Your task to perform on an android device: uninstall "Pandora - Music & Podcasts" Image 0: 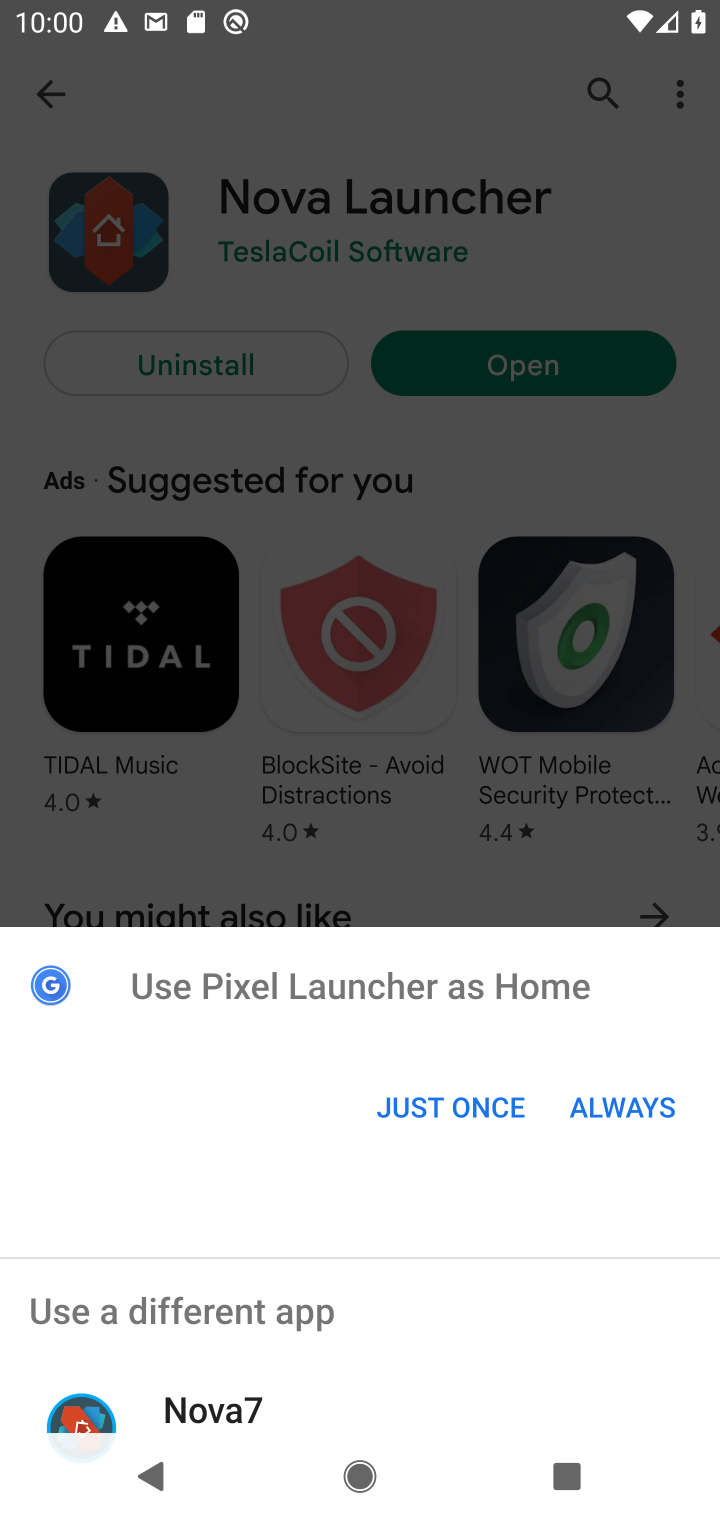
Step 0: press home button
Your task to perform on an android device: uninstall "Pandora - Music & Podcasts" Image 1: 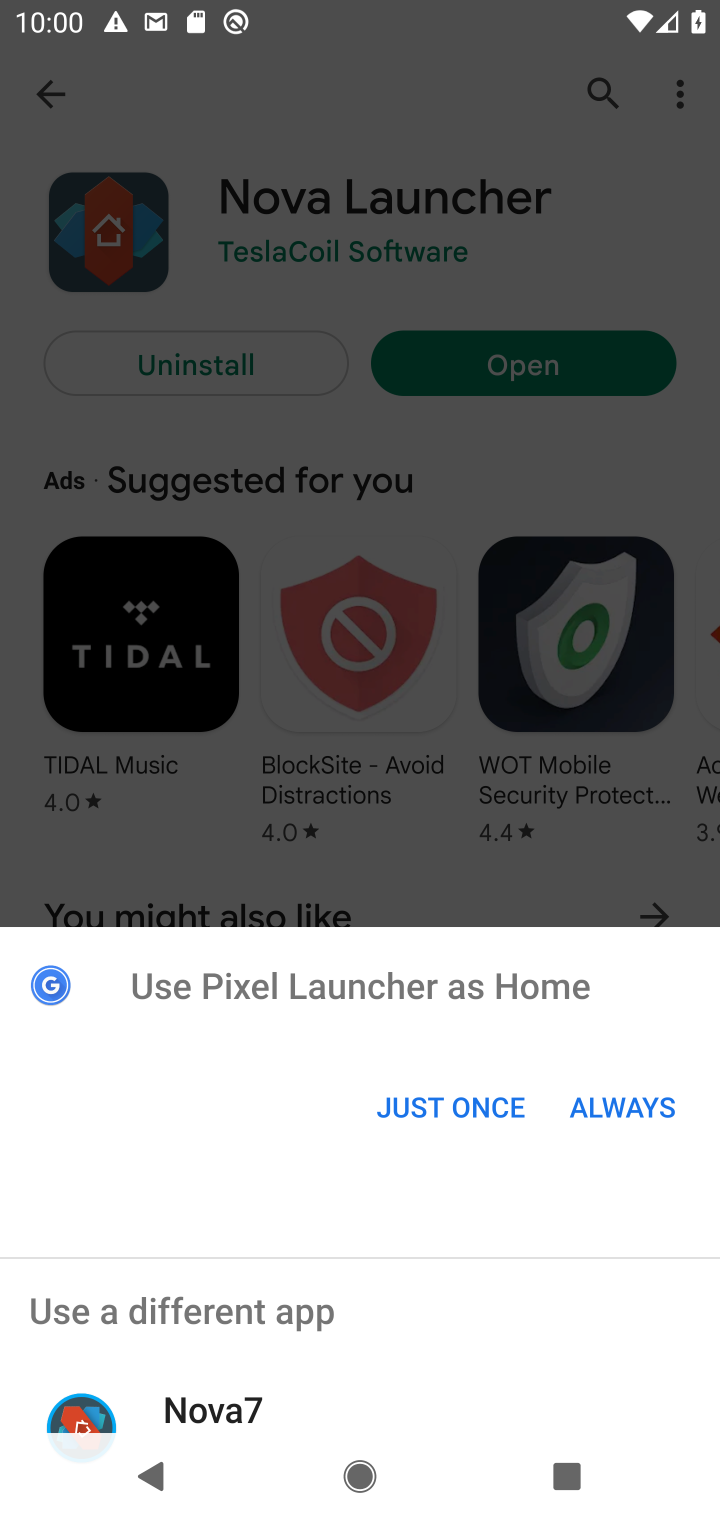
Step 1: click (630, 1113)
Your task to perform on an android device: uninstall "Pandora - Music & Podcasts" Image 2: 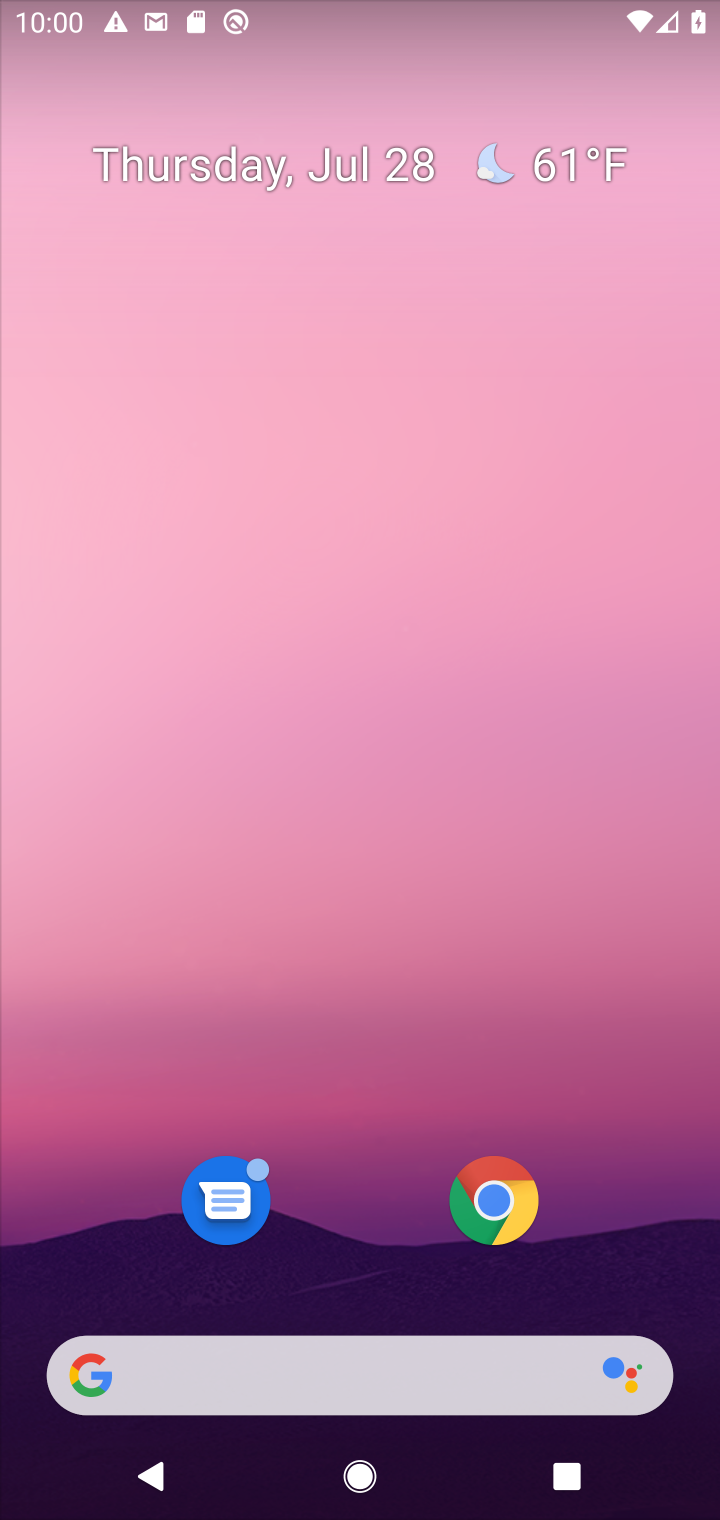
Step 2: drag from (450, 1377) to (525, 226)
Your task to perform on an android device: uninstall "Pandora - Music & Podcasts" Image 3: 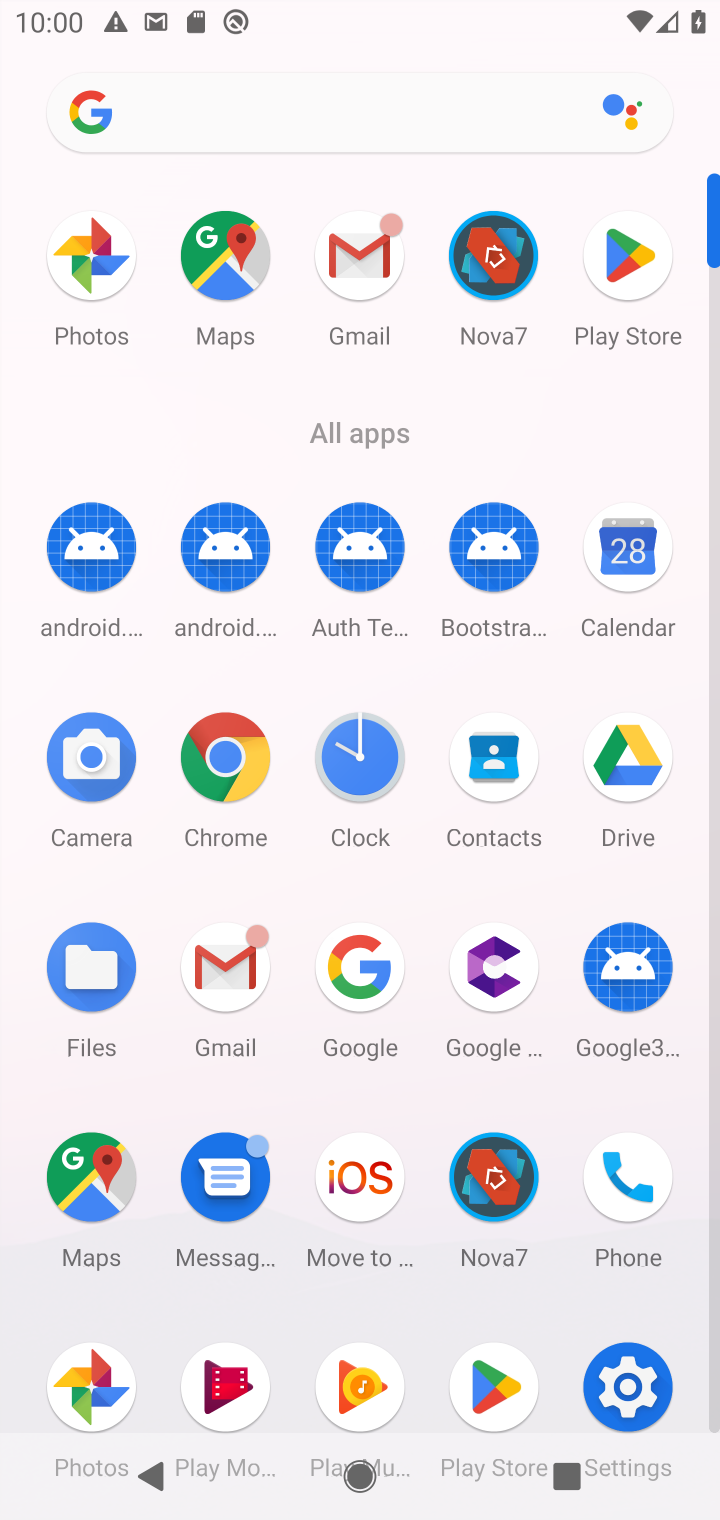
Step 3: drag from (621, 258) to (588, 988)
Your task to perform on an android device: uninstall "Pandora - Music & Podcasts" Image 4: 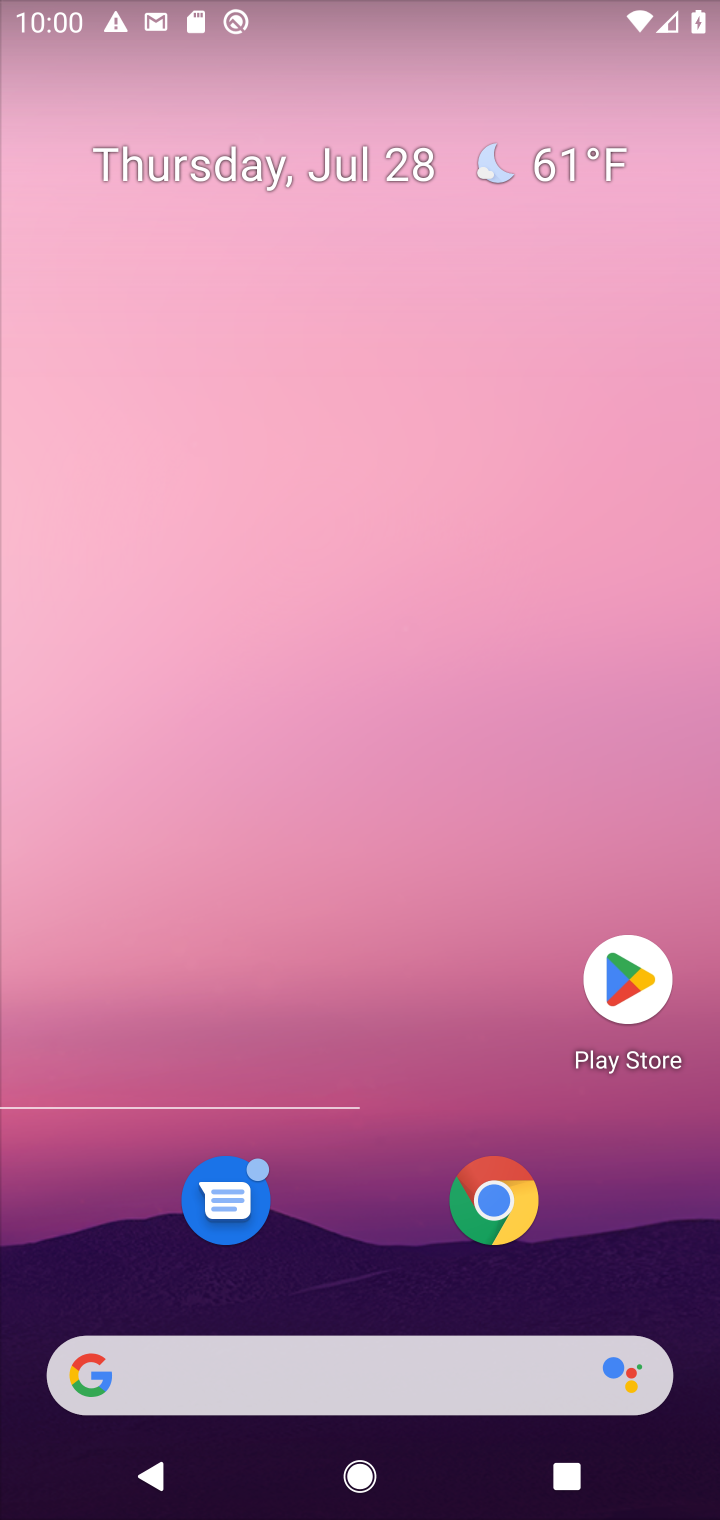
Step 4: click (630, 997)
Your task to perform on an android device: uninstall "Pandora - Music & Podcasts" Image 5: 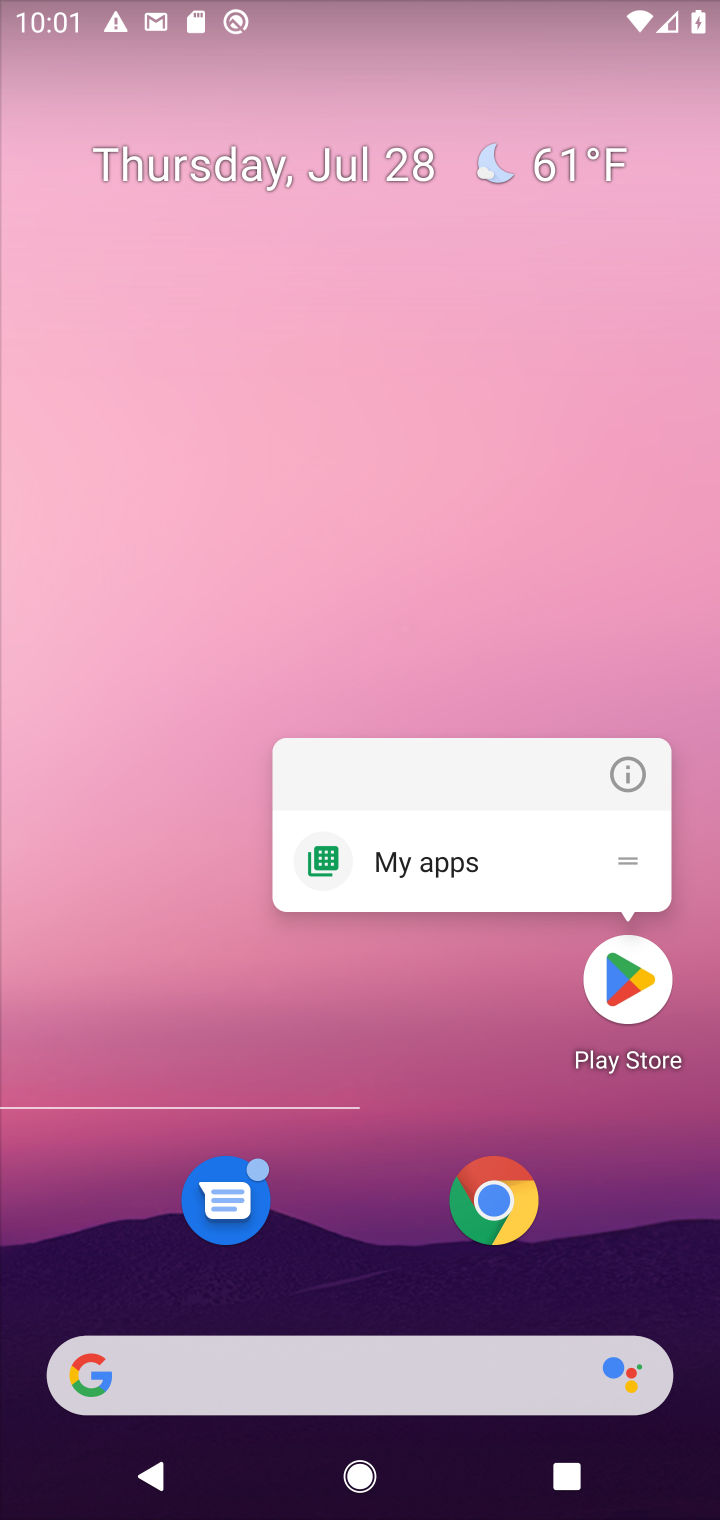
Step 5: click (630, 997)
Your task to perform on an android device: uninstall "Pandora - Music & Podcasts" Image 6: 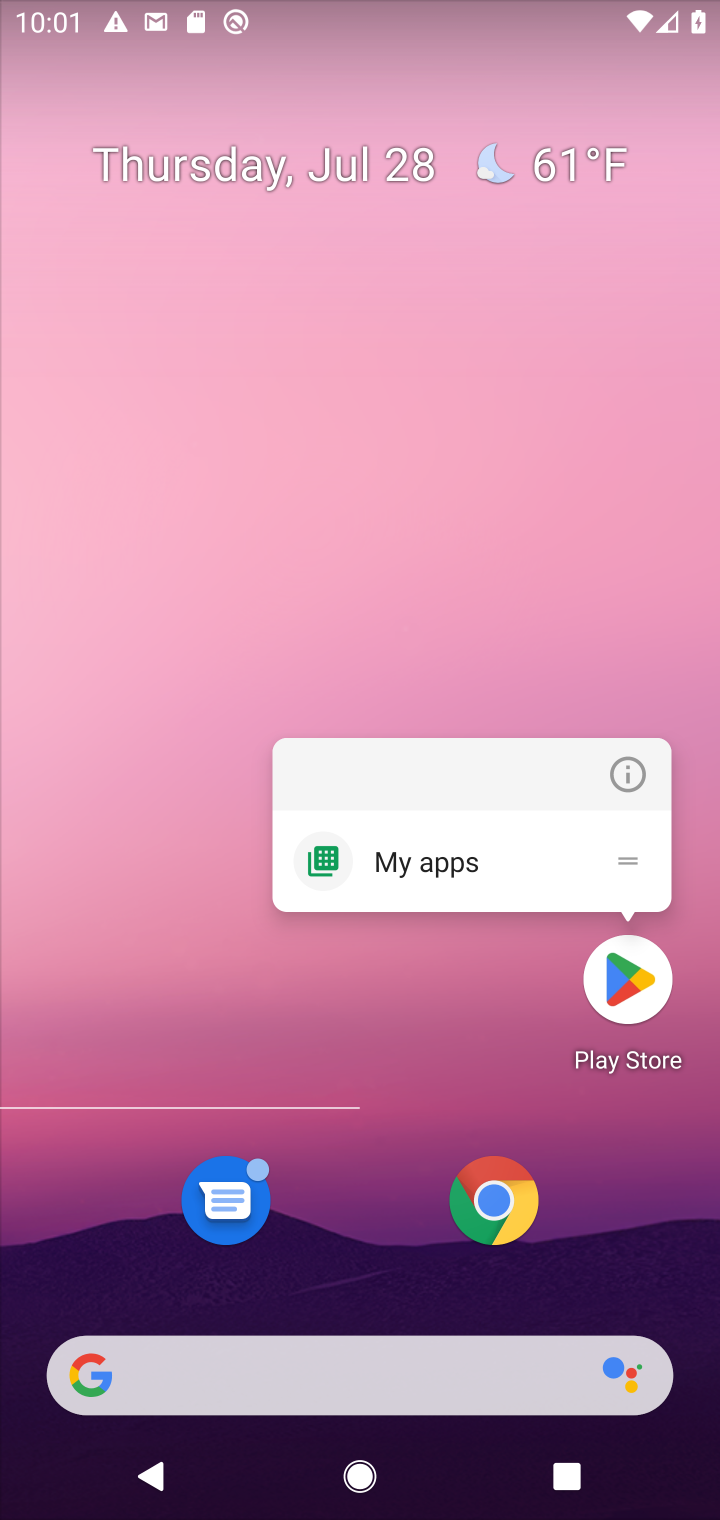
Step 6: click (630, 997)
Your task to perform on an android device: uninstall "Pandora - Music & Podcasts" Image 7: 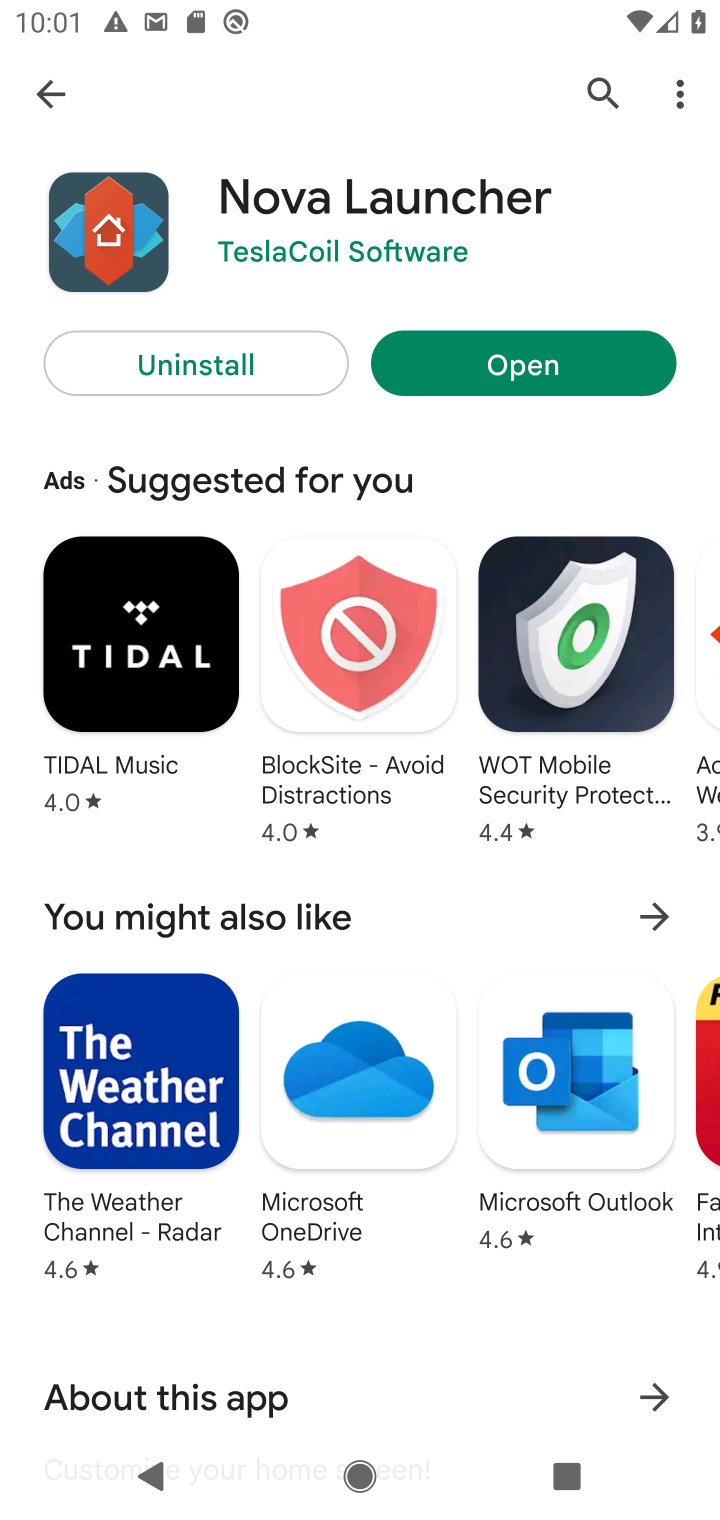
Step 7: click (590, 82)
Your task to perform on an android device: uninstall "Pandora - Music & Podcasts" Image 8: 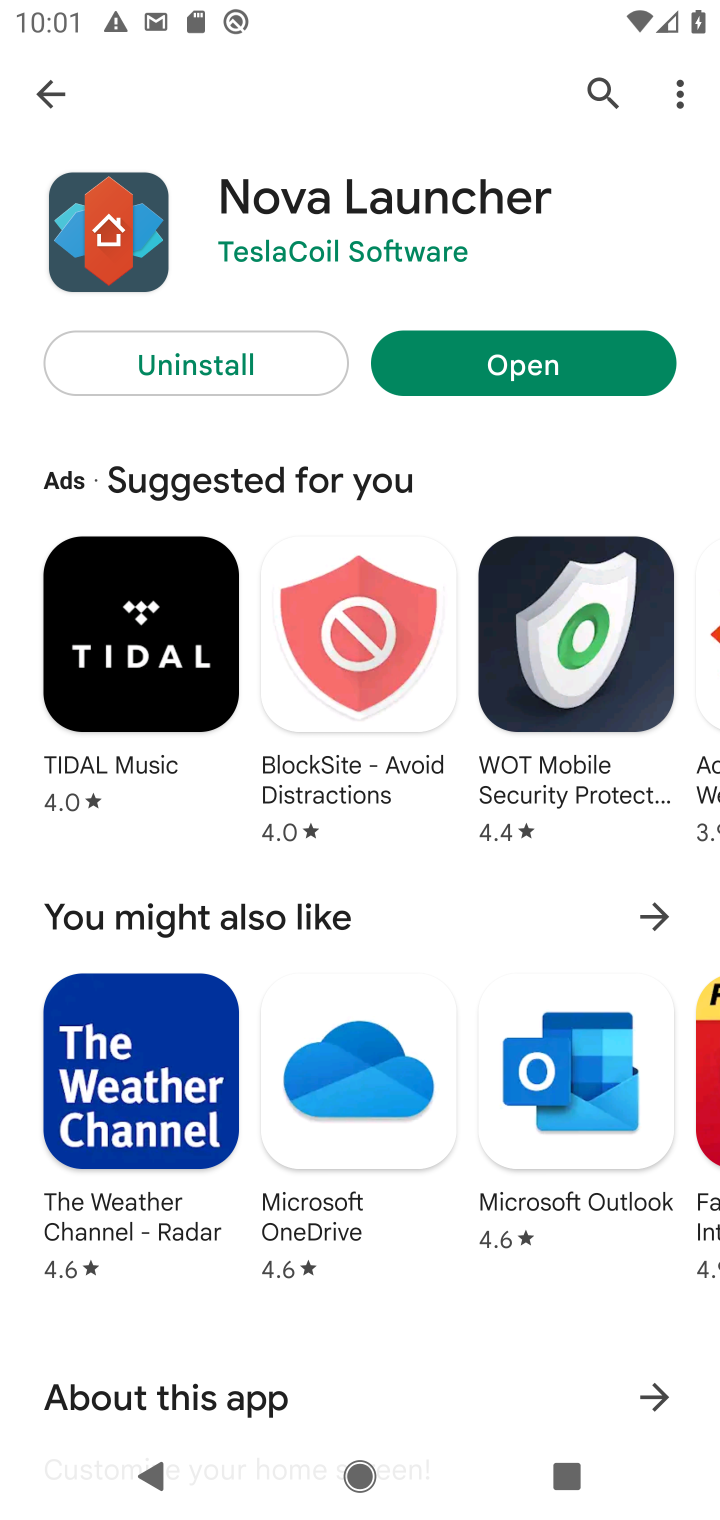
Step 8: click (592, 82)
Your task to perform on an android device: uninstall "Pandora - Music & Podcasts" Image 9: 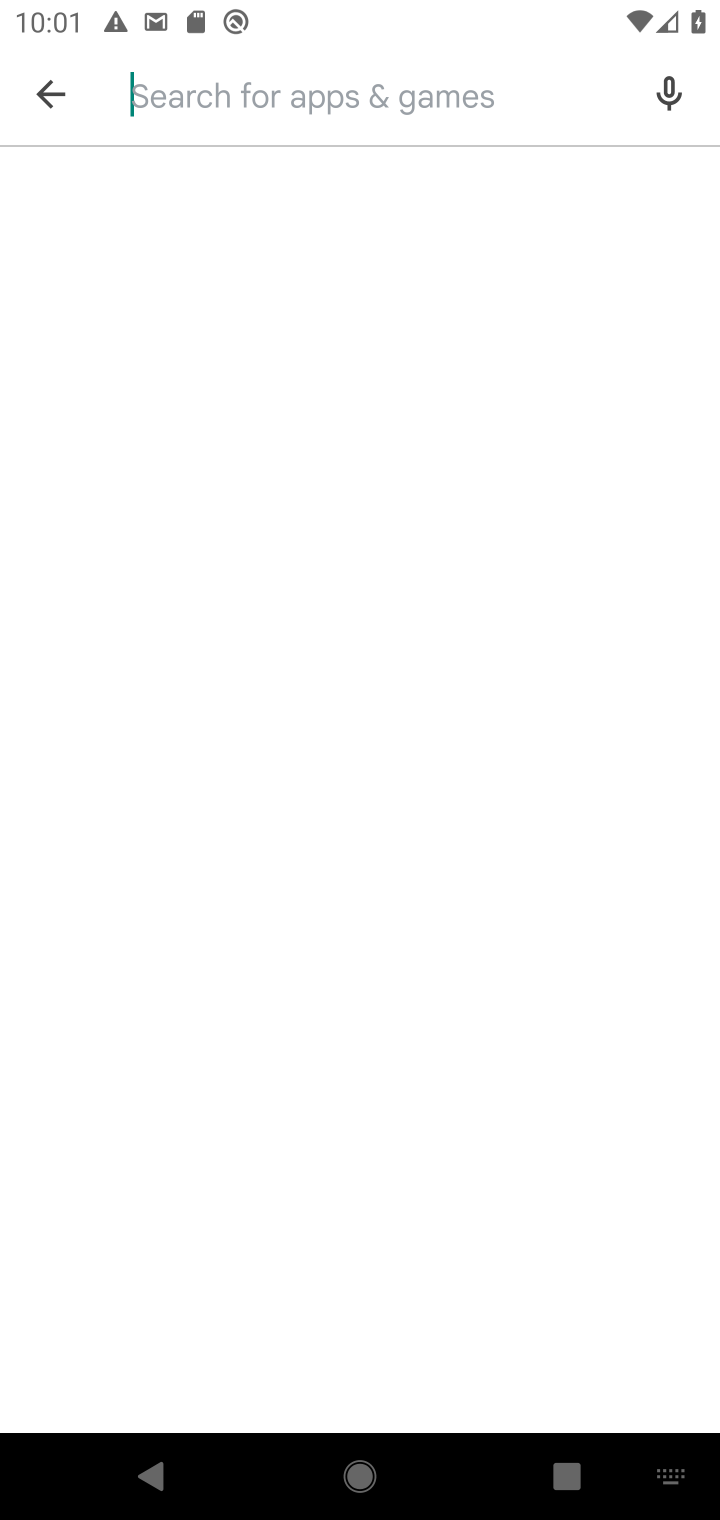
Step 9: type "Pandora - Music & Podcasts"
Your task to perform on an android device: uninstall "Pandora - Music & Podcasts" Image 10: 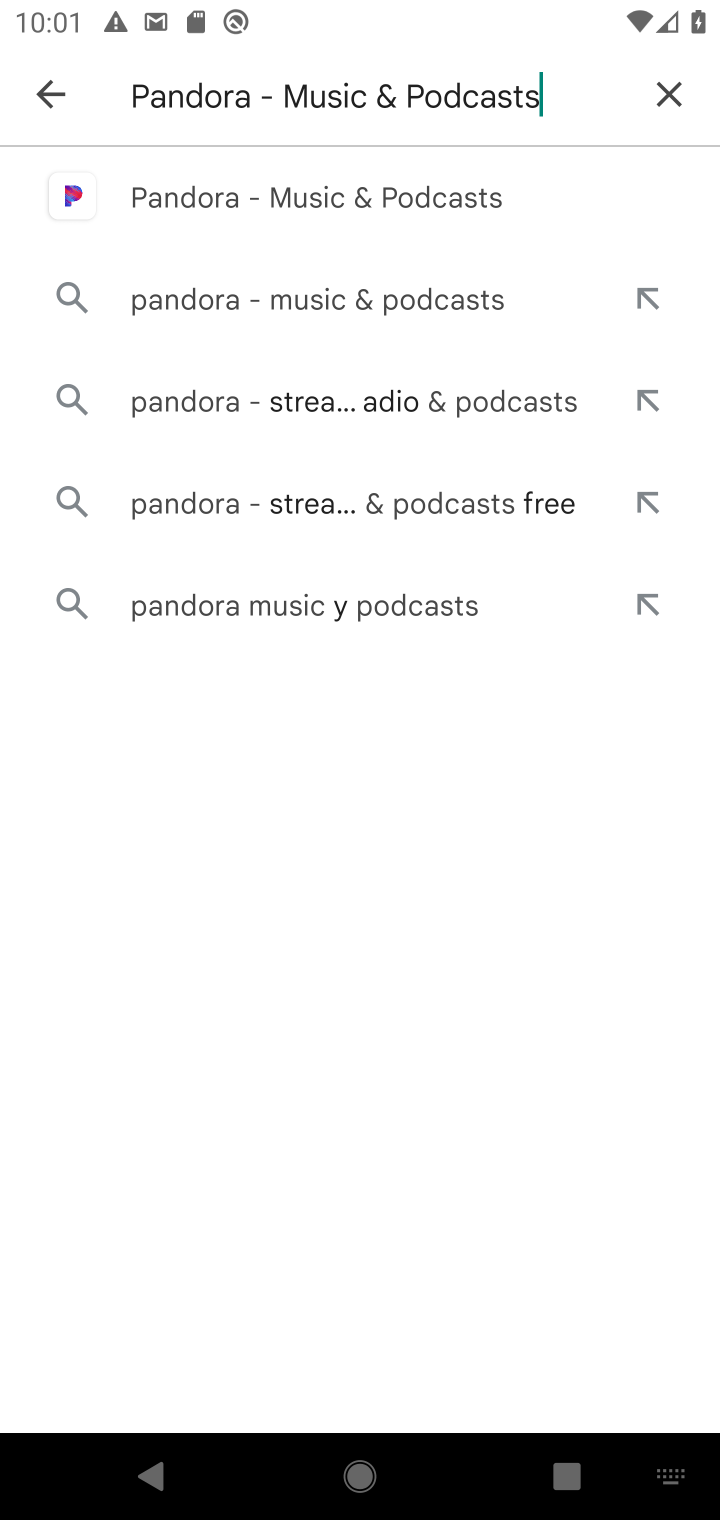
Step 10: click (306, 197)
Your task to perform on an android device: uninstall "Pandora - Music & Podcasts" Image 11: 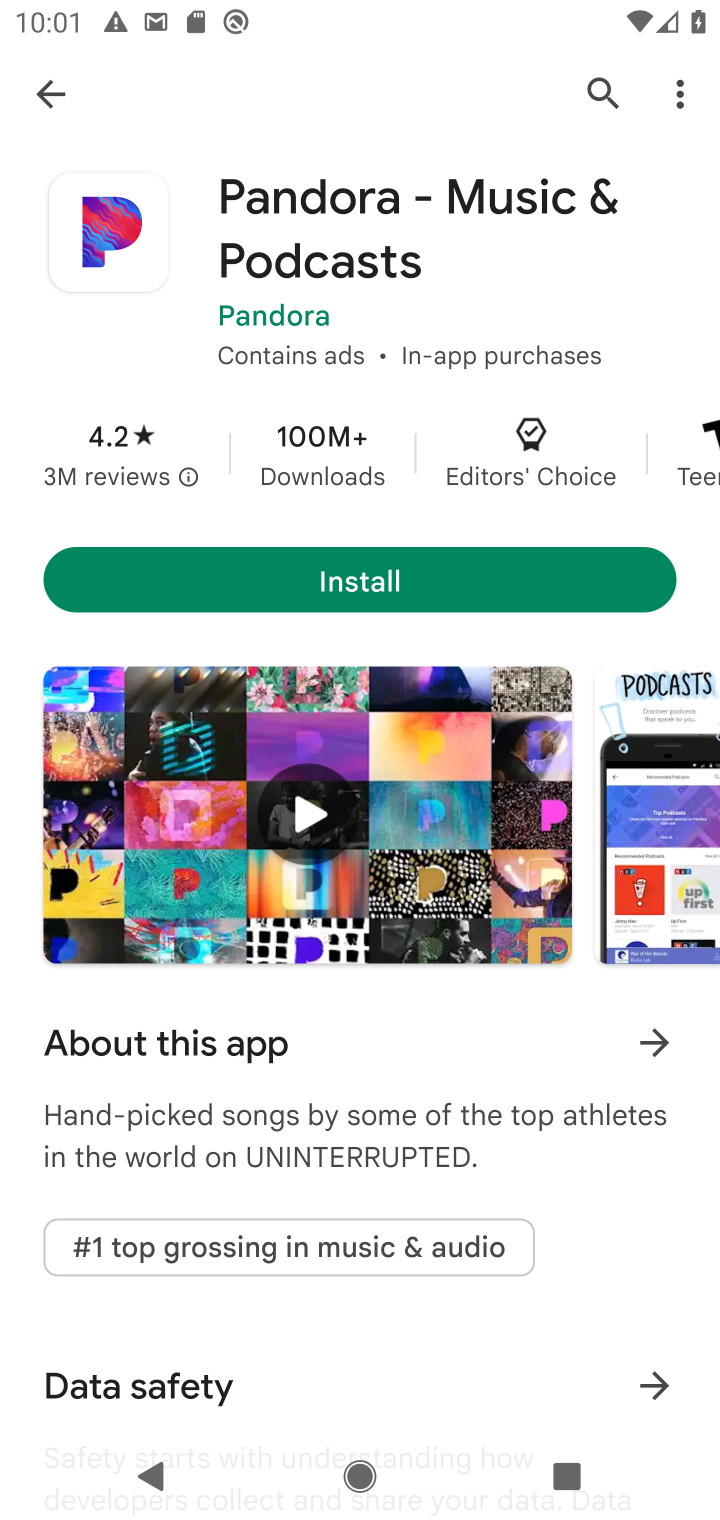
Step 11: task complete